Your task to perform on an android device: Clear the cart on costco. Add "logitech g502" to the cart on costco Image 0: 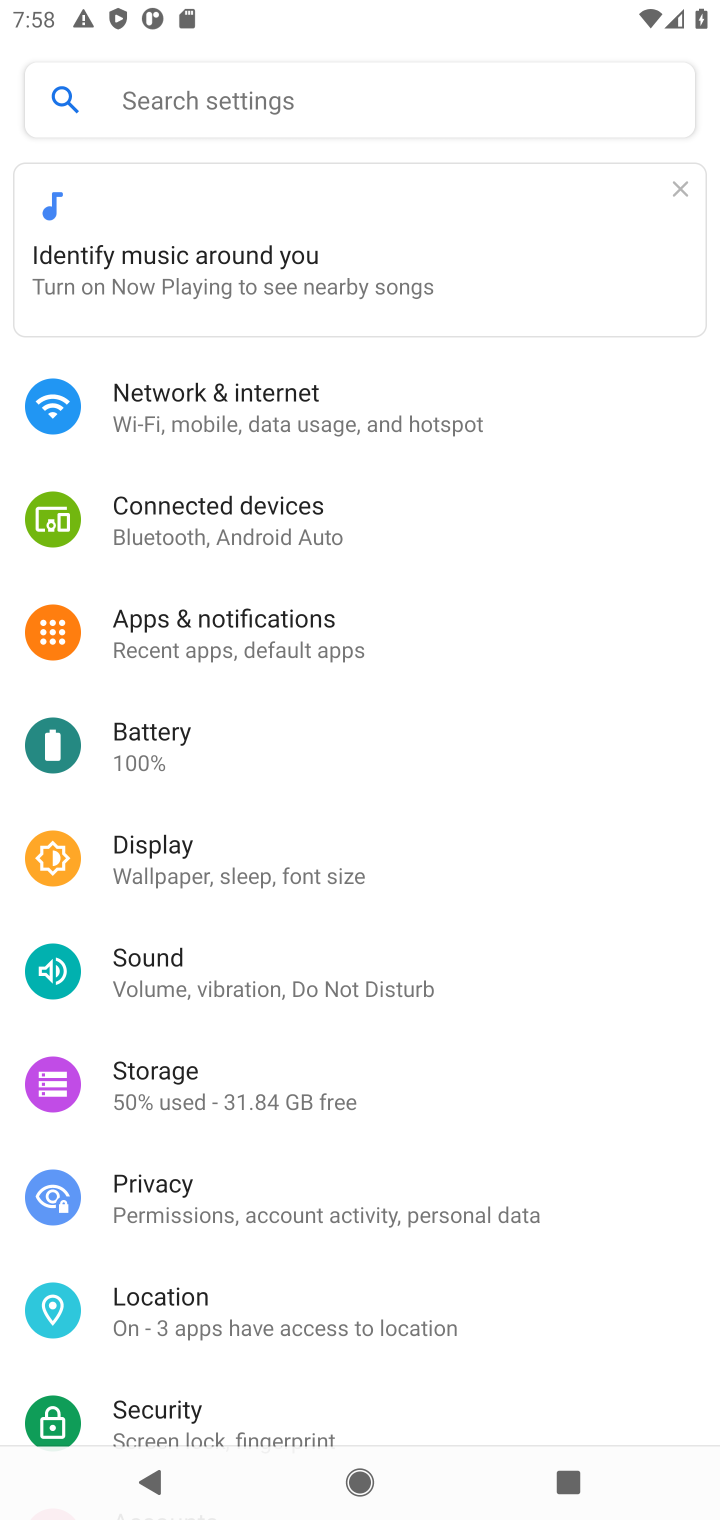
Step 0: press home button
Your task to perform on an android device: Clear the cart on costco. Add "logitech g502" to the cart on costco Image 1: 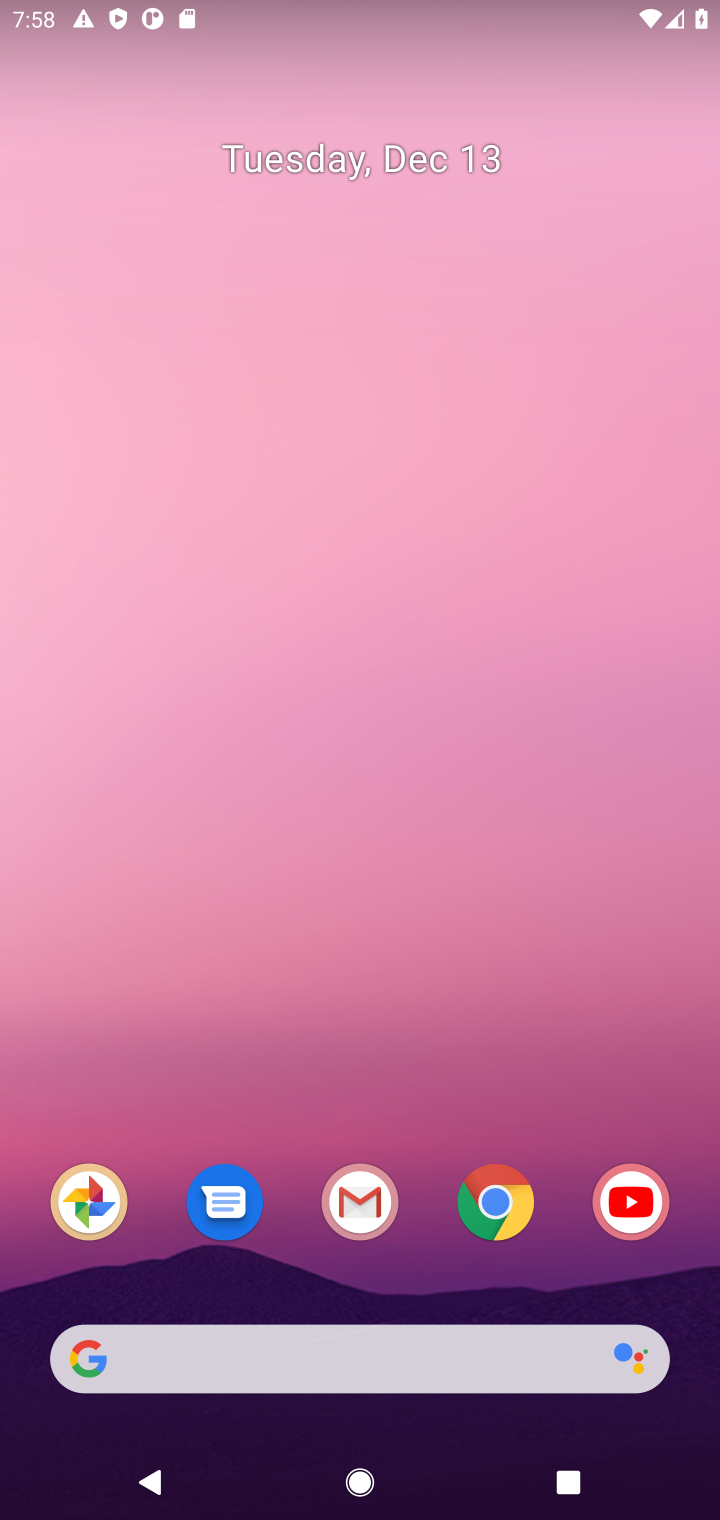
Step 1: click (490, 1214)
Your task to perform on an android device: Clear the cart on costco. Add "logitech g502" to the cart on costco Image 2: 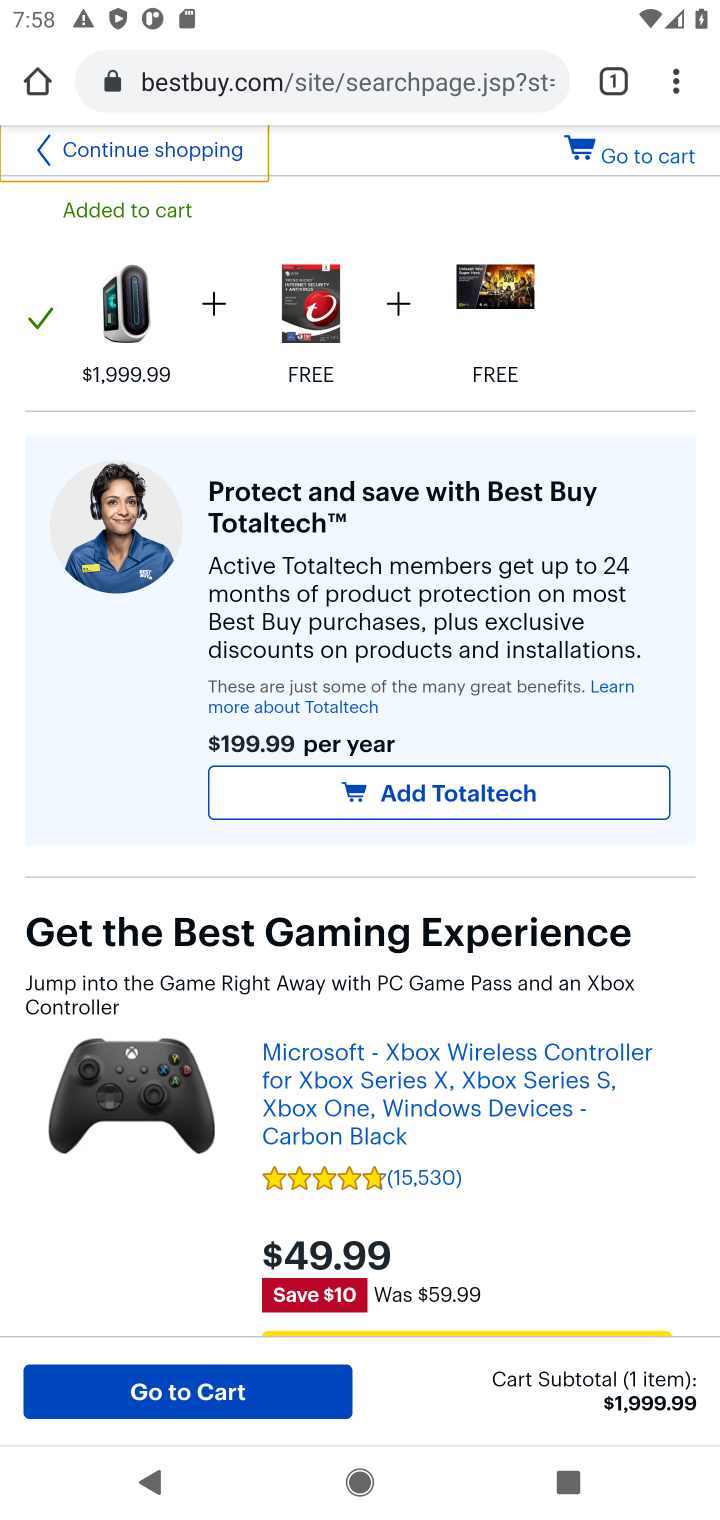
Step 2: click (301, 91)
Your task to perform on an android device: Clear the cart on costco. Add "logitech g502" to the cart on costco Image 3: 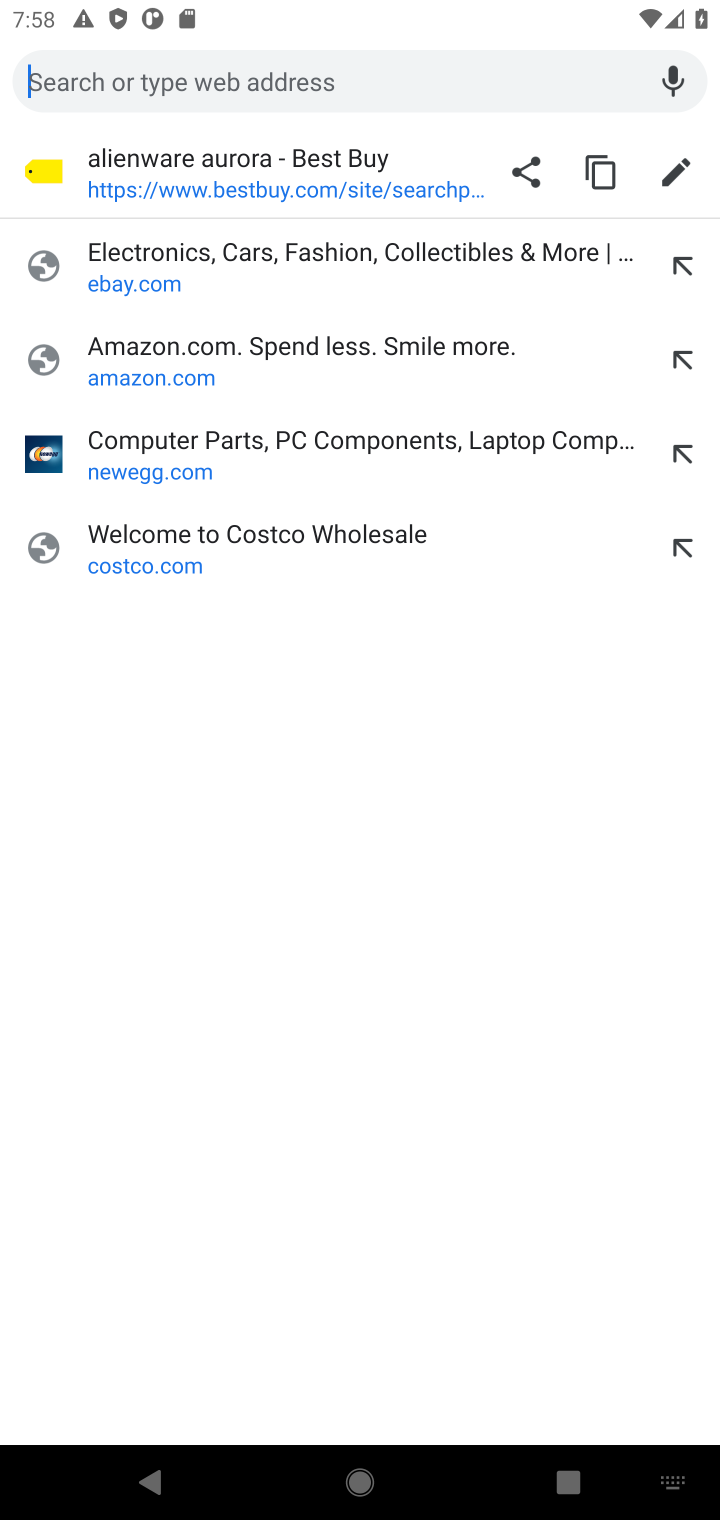
Step 3: click (155, 549)
Your task to perform on an android device: Clear the cart on costco. Add "logitech g502" to the cart on costco Image 4: 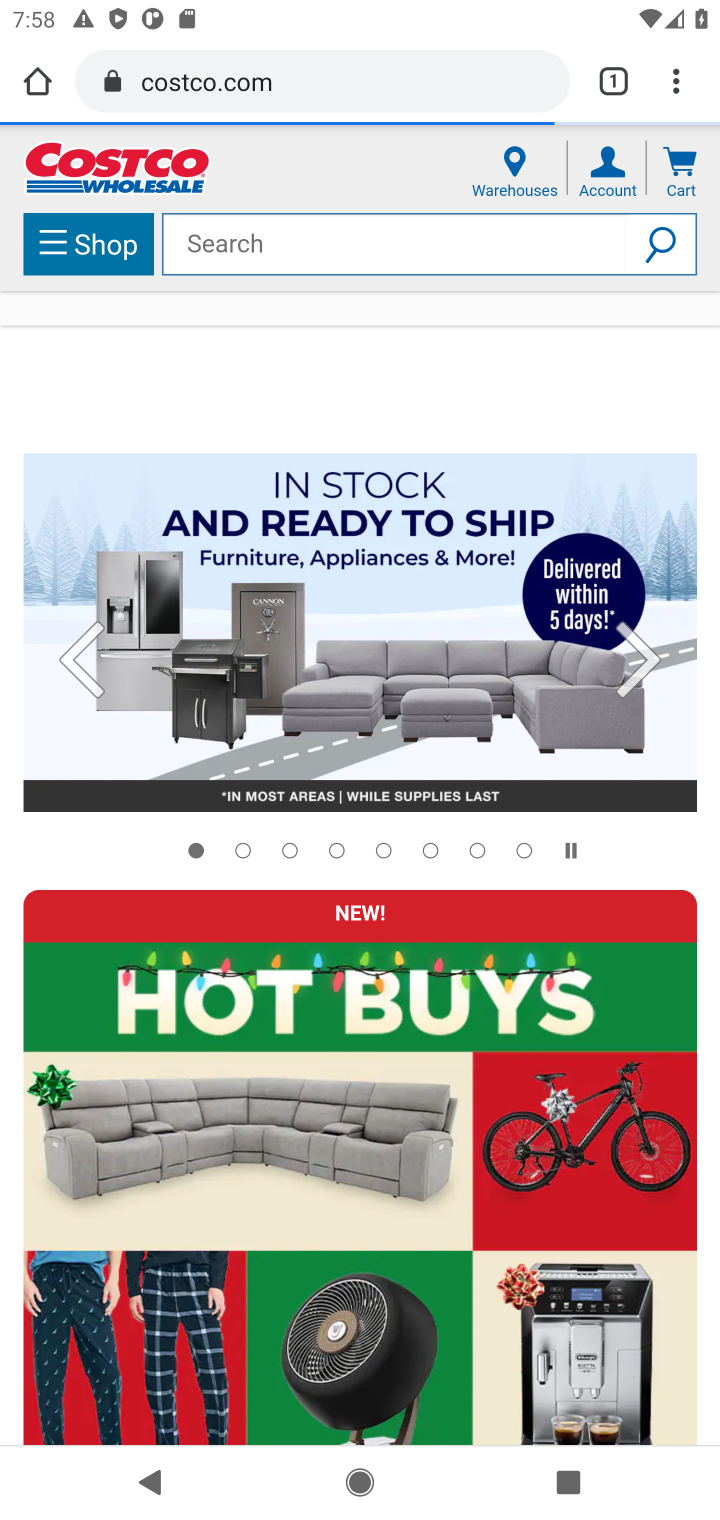
Step 4: click (675, 173)
Your task to perform on an android device: Clear the cart on costco. Add "logitech g502" to the cart on costco Image 5: 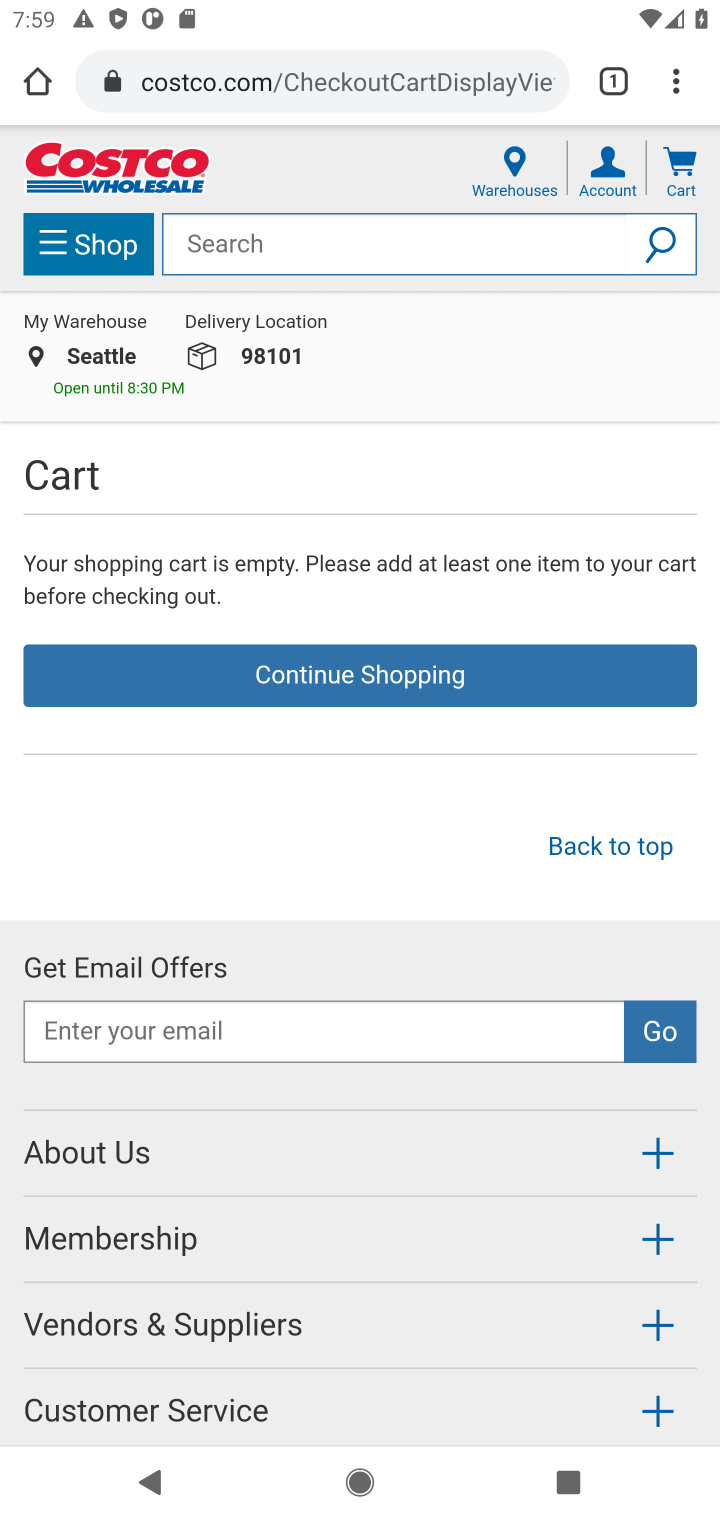
Step 5: click (247, 238)
Your task to perform on an android device: Clear the cart on costco. Add "logitech g502" to the cart on costco Image 6: 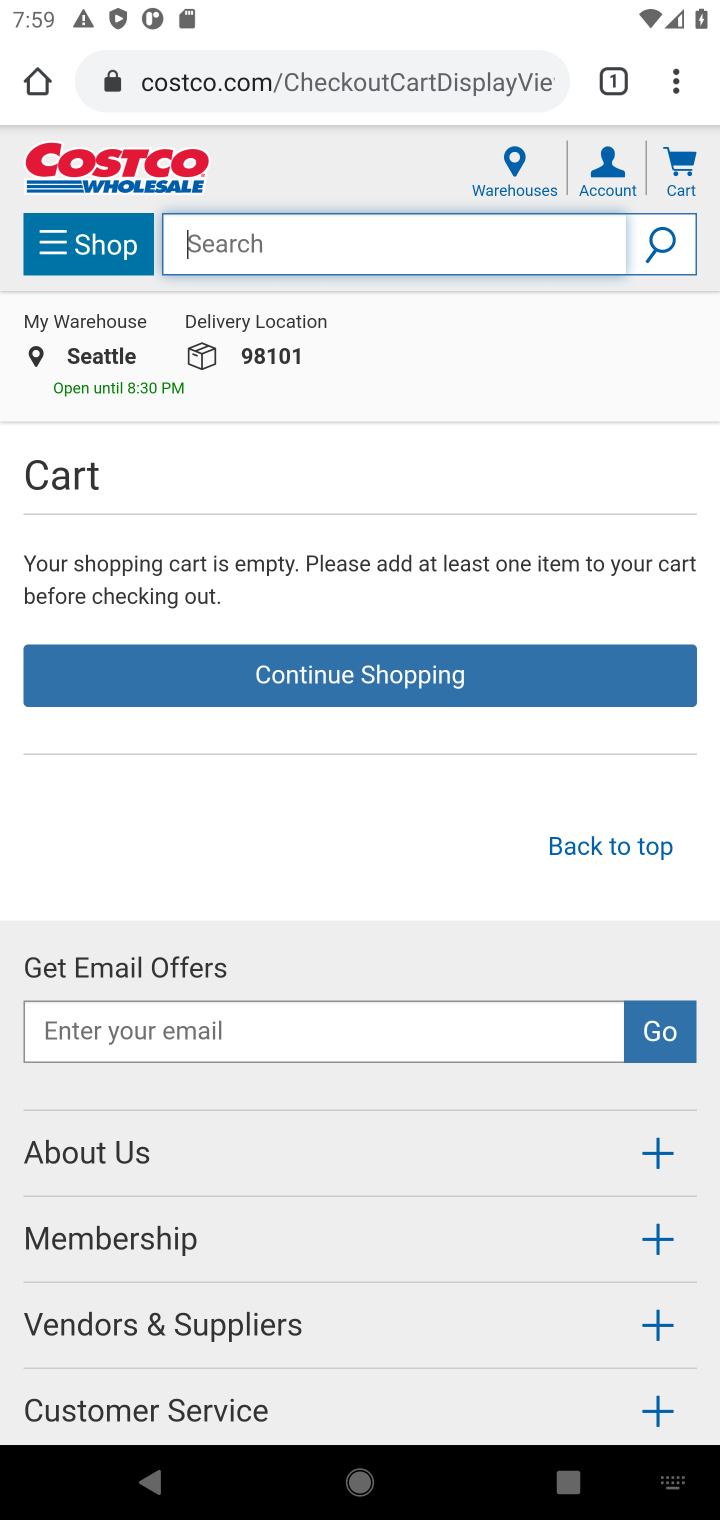
Step 6: type "logitech g502"
Your task to perform on an android device: Clear the cart on costco. Add "logitech g502" to the cart on costco Image 7: 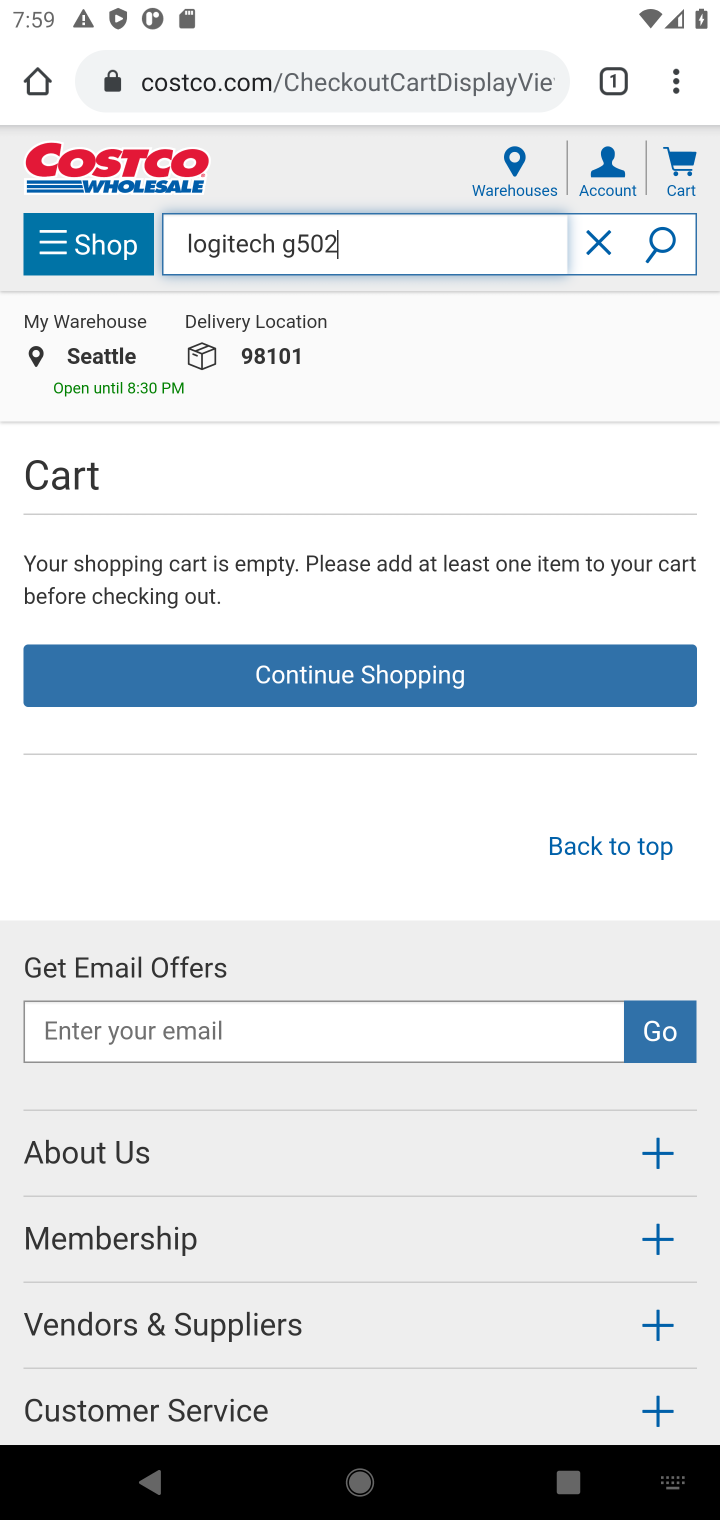
Step 7: click (672, 253)
Your task to perform on an android device: Clear the cart on costco. Add "logitech g502" to the cart on costco Image 8: 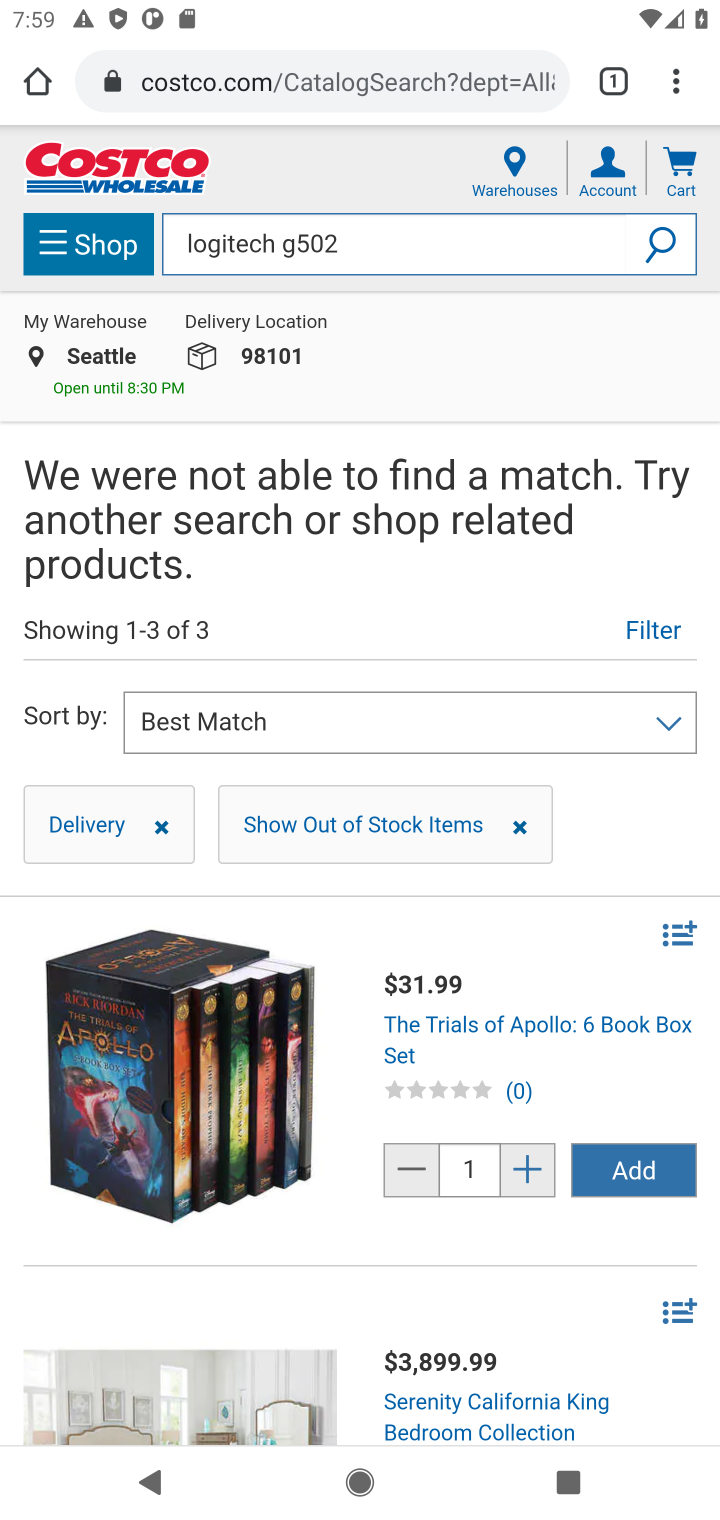
Step 8: task complete